Your task to perform on an android device: move a message to another label in the gmail app Image 0: 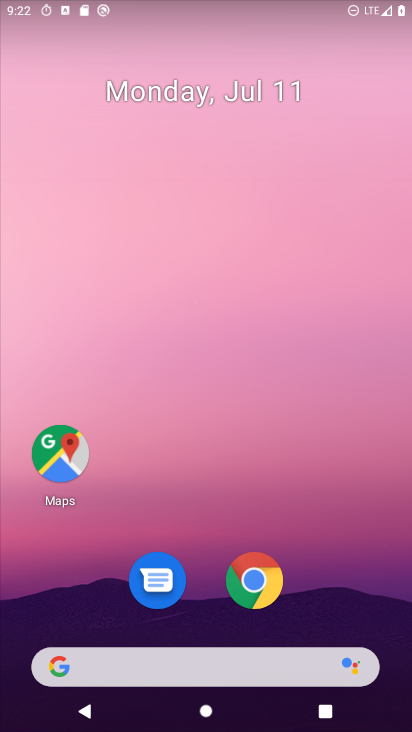
Step 0: drag from (351, 499) to (320, 22)
Your task to perform on an android device: move a message to another label in the gmail app Image 1: 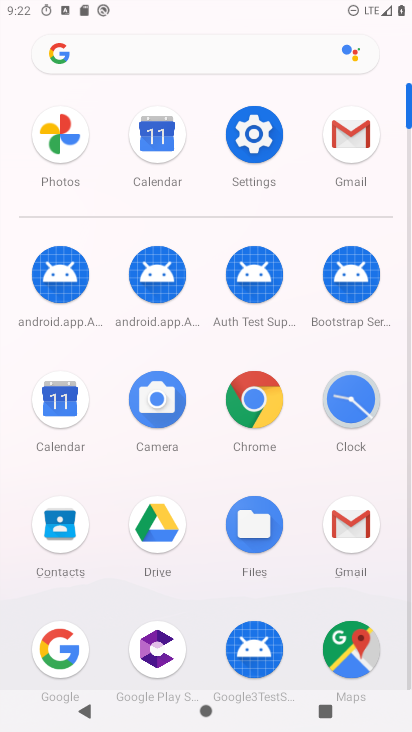
Step 1: click (354, 147)
Your task to perform on an android device: move a message to another label in the gmail app Image 2: 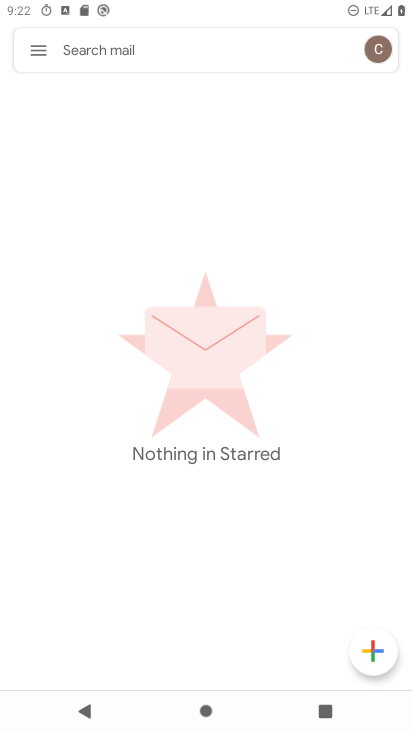
Step 2: click (41, 45)
Your task to perform on an android device: move a message to another label in the gmail app Image 3: 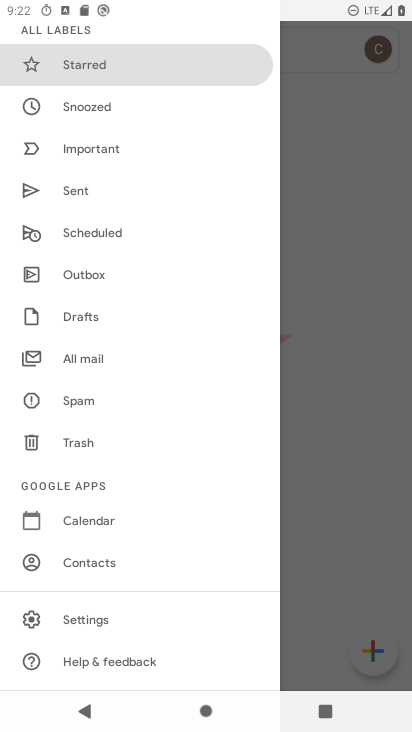
Step 3: click (98, 355)
Your task to perform on an android device: move a message to another label in the gmail app Image 4: 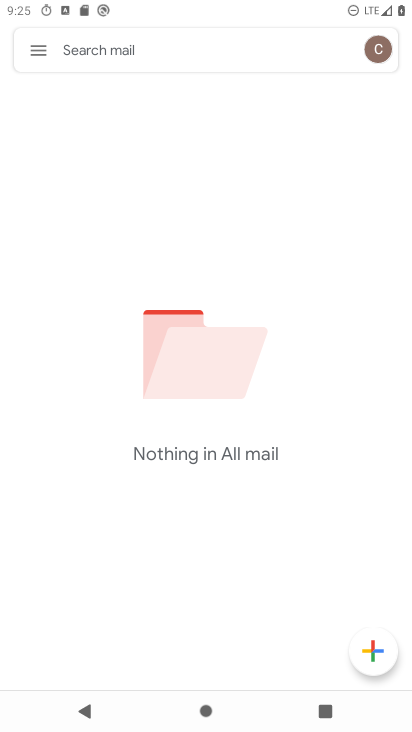
Step 4: task complete